Your task to perform on an android device: Go to privacy settings Image 0: 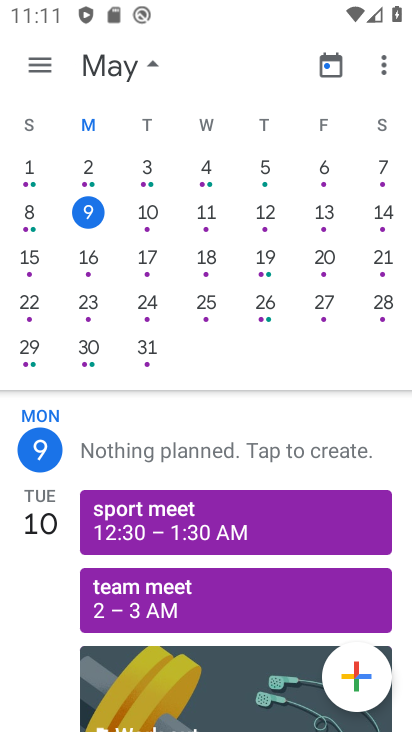
Step 0: press home button
Your task to perform on an android device: Go to privacy settings Image 1: 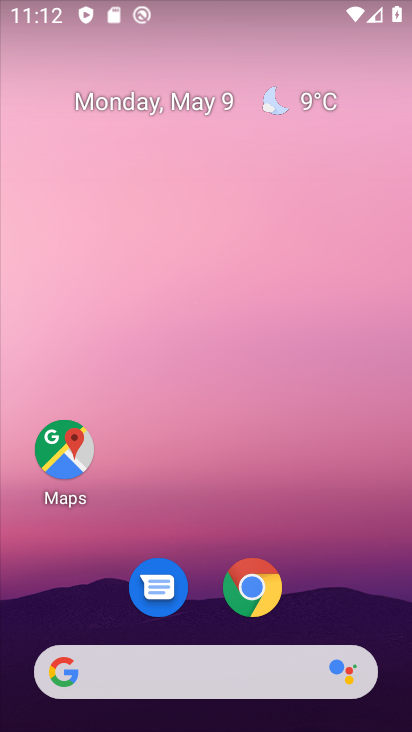
Step 1: drag from (180, 626) to (213, 238)
Your task to perform on an android device: Go to privacy settings Image 2: 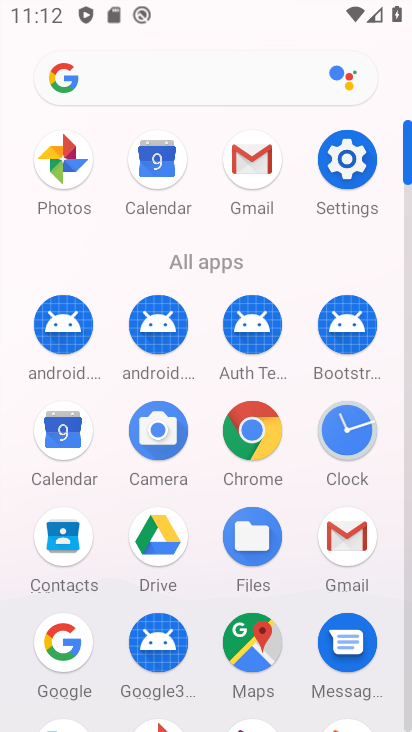
Step 2: click (336, 156)
Your task to perform on an android device: Go to privacy settings Image 3: 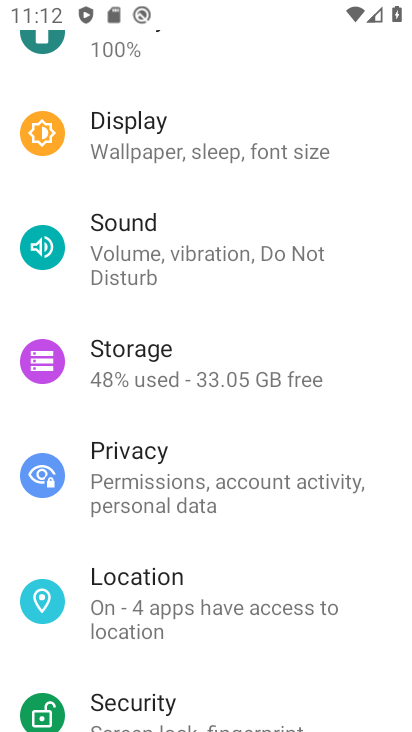
Step 3: click (122, 453)
Your task to perform on an android device: Go to privacy settings Image 4: 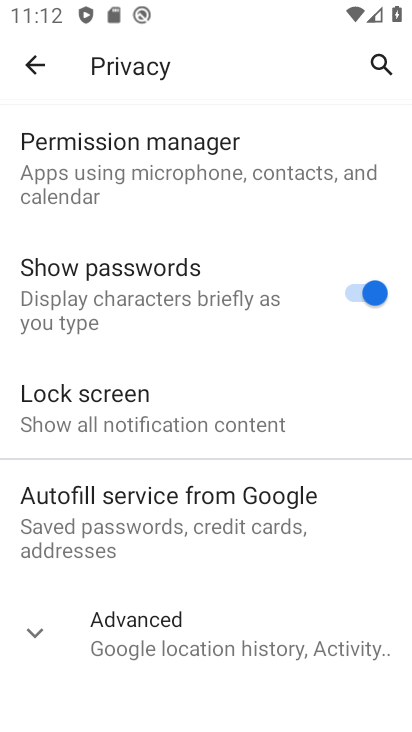
Step 4: task complete